Your task to perform on an android device: Open accessibility settings Image 0: 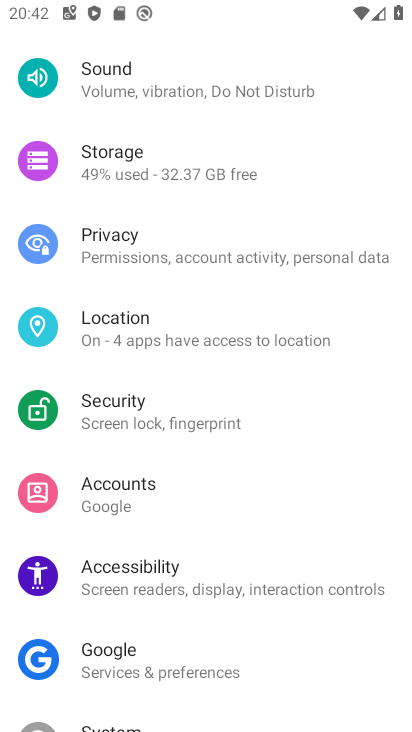
Step 0: press home button
Your task to perform on an android device: Open accessibility settings Image 1: 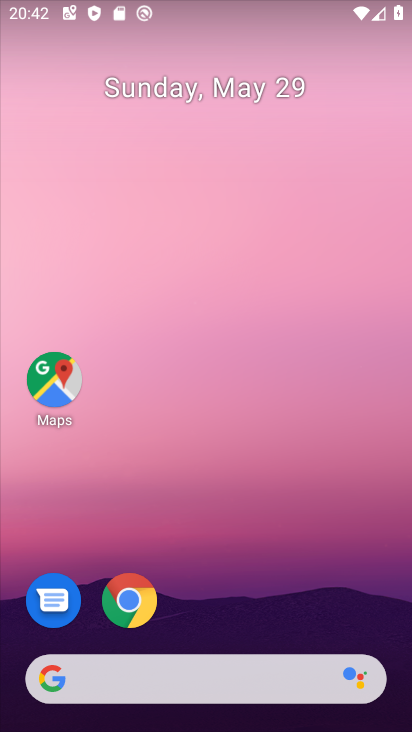
Step 1: drag from (295, 576) to (319, 217)
Your task to perform on an android device: Open accessibility settings Image 2: 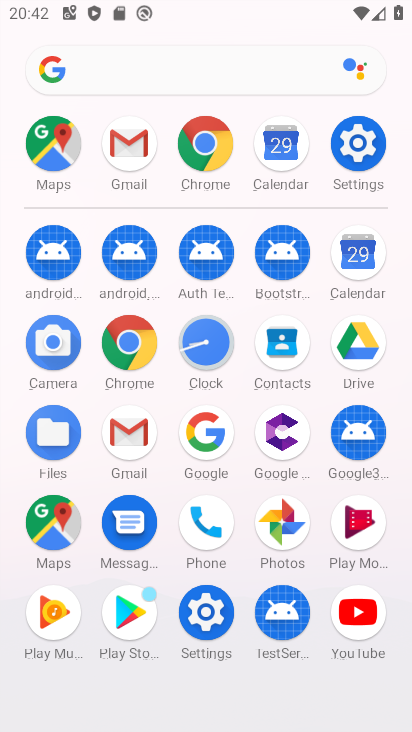
Step 2: click (203, 624)
Your task to perform on an android device: Open accessibility settings Image 3: 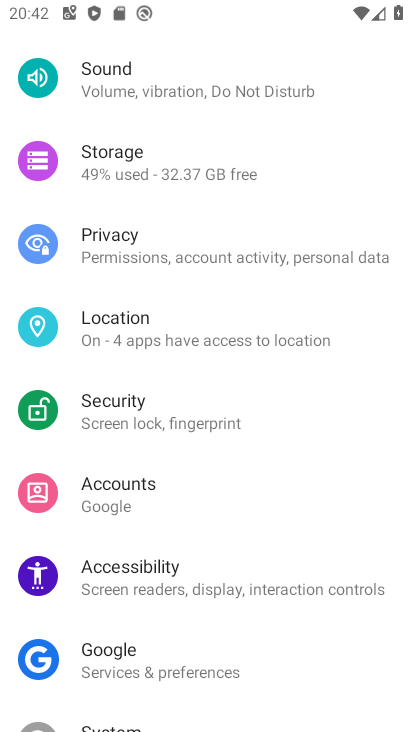
Step 3: click (197, 579)
Your task to perform on an android device: Open accessibility settings Image 4: 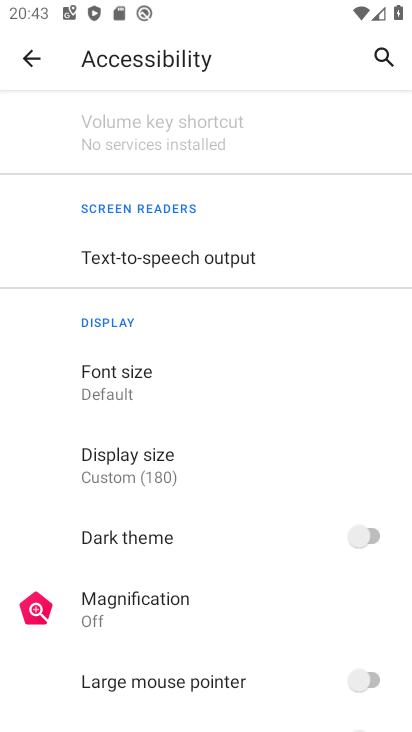
Step 4: task complete